Your task to perform on an android device: open app "ColorNote Notepad Notes" (install if not already installed) and go to login screen Image 0: 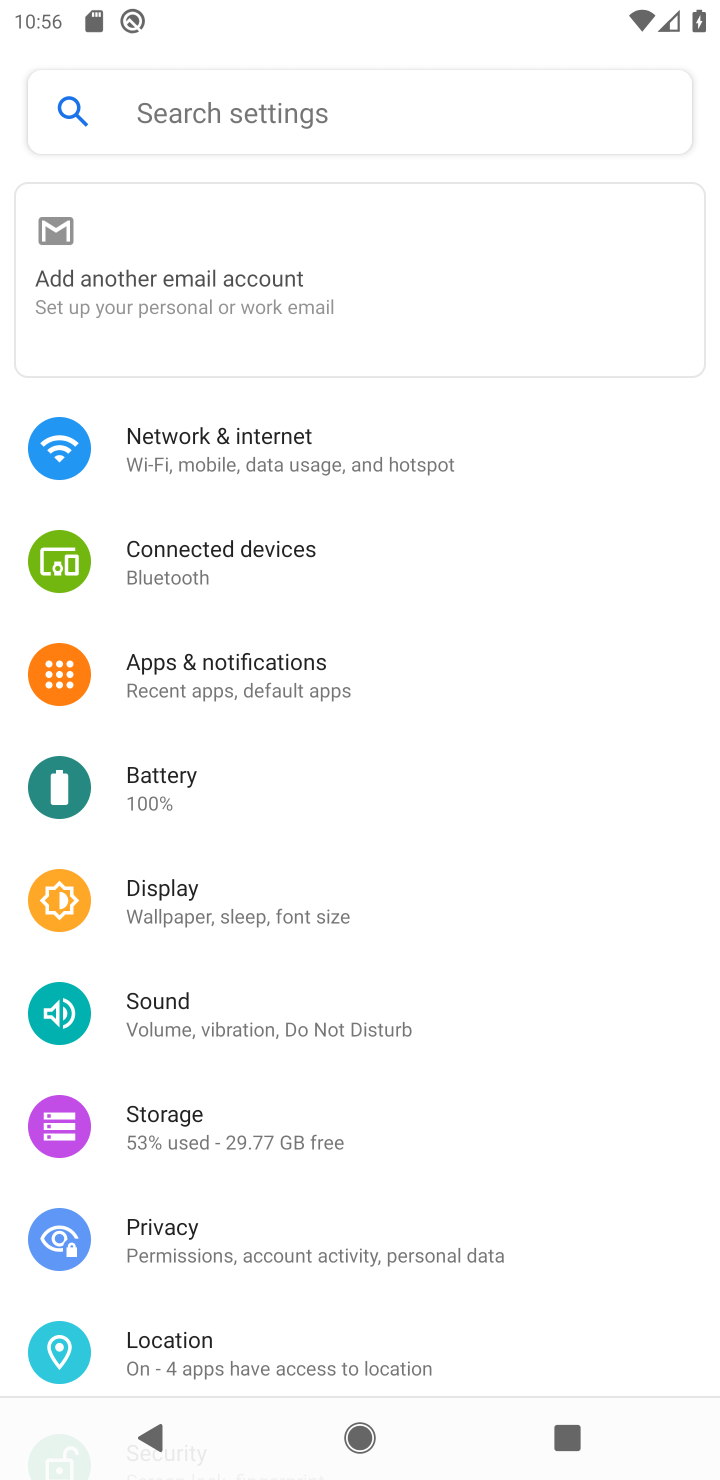
Step 0: press home button
Your task to perform on an android device: open app "ColorNote Notepad Notes" (install if not already installed) and go to login screen Image 1: 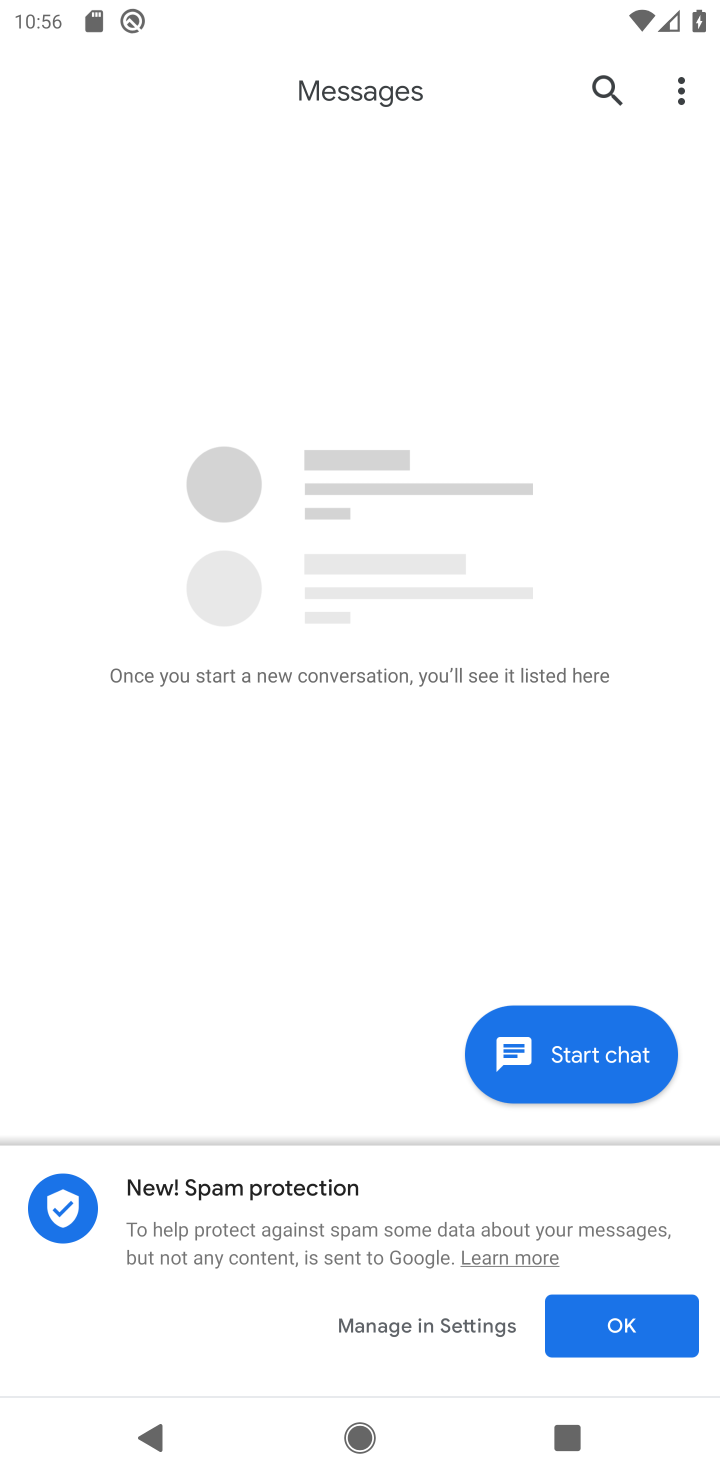
Step 1: press home button
Your task to perform on an android device: open app "ColorNote Notepad Notes" (install if not already installed) and go to login screen Image 2: 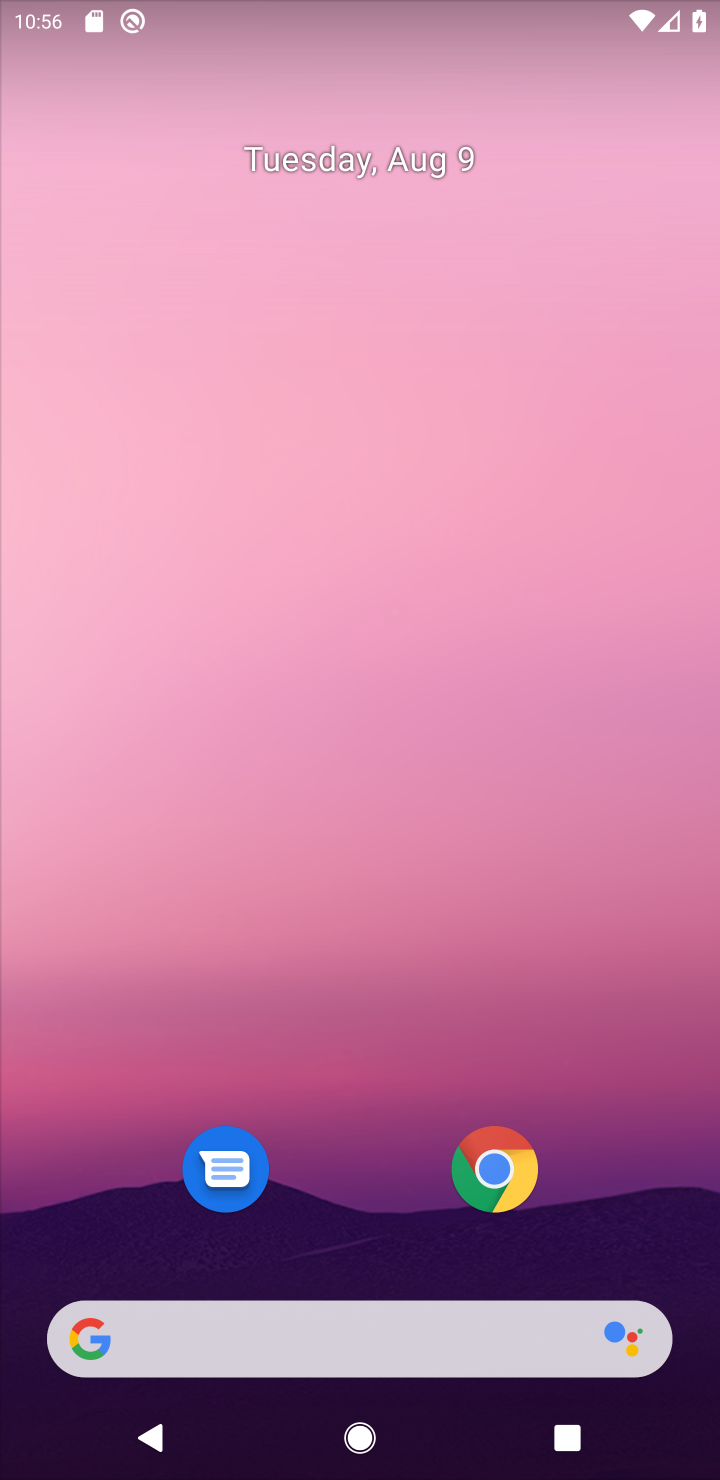
Step 2: drag from (620, 1194) to (661, 107)
Your task to perform on an android device: open app "ColorNote Notepad Notes" (install if not already installed) and go to login screen Image 3: 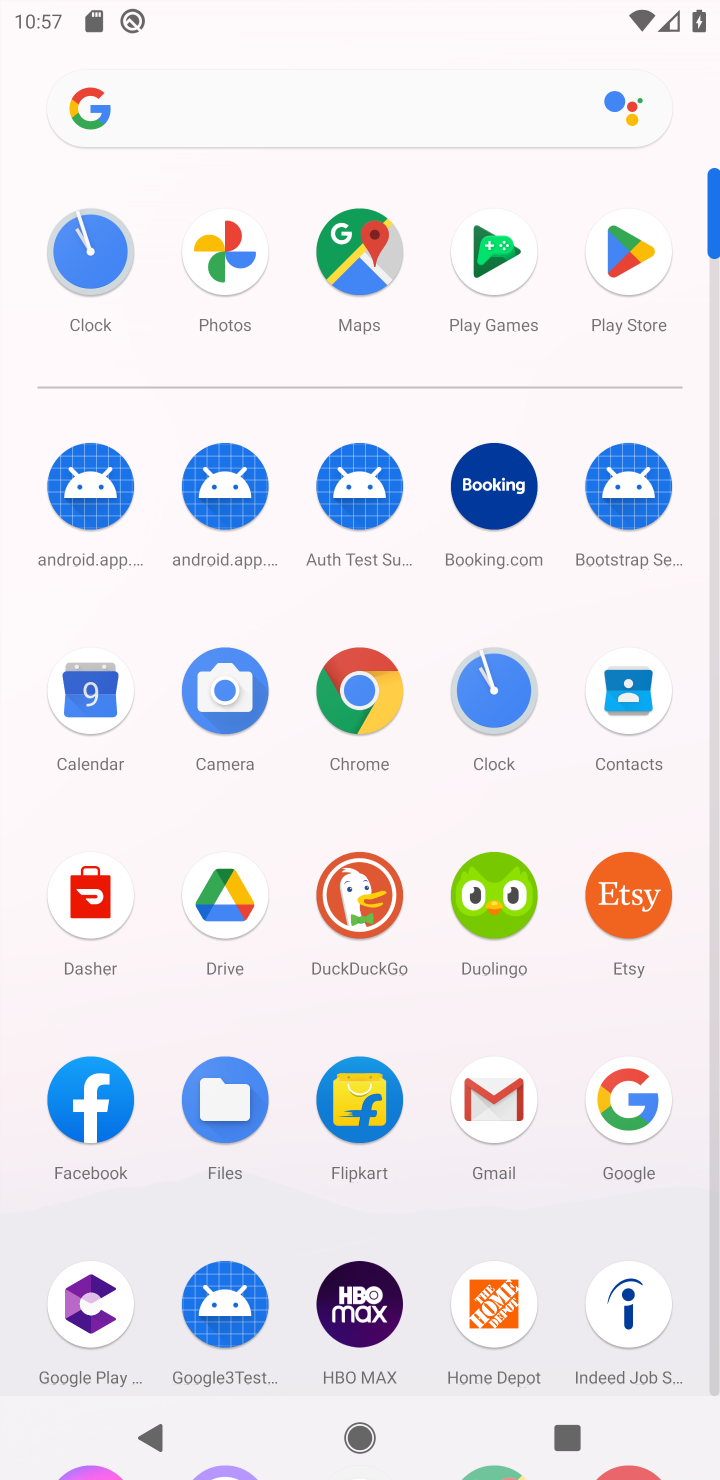
Step 3: click (659, 232)
Your task to perform on an android device: open app "ColorNote Notepad Notes" (install if not already installed) and go to login screen Image 4: 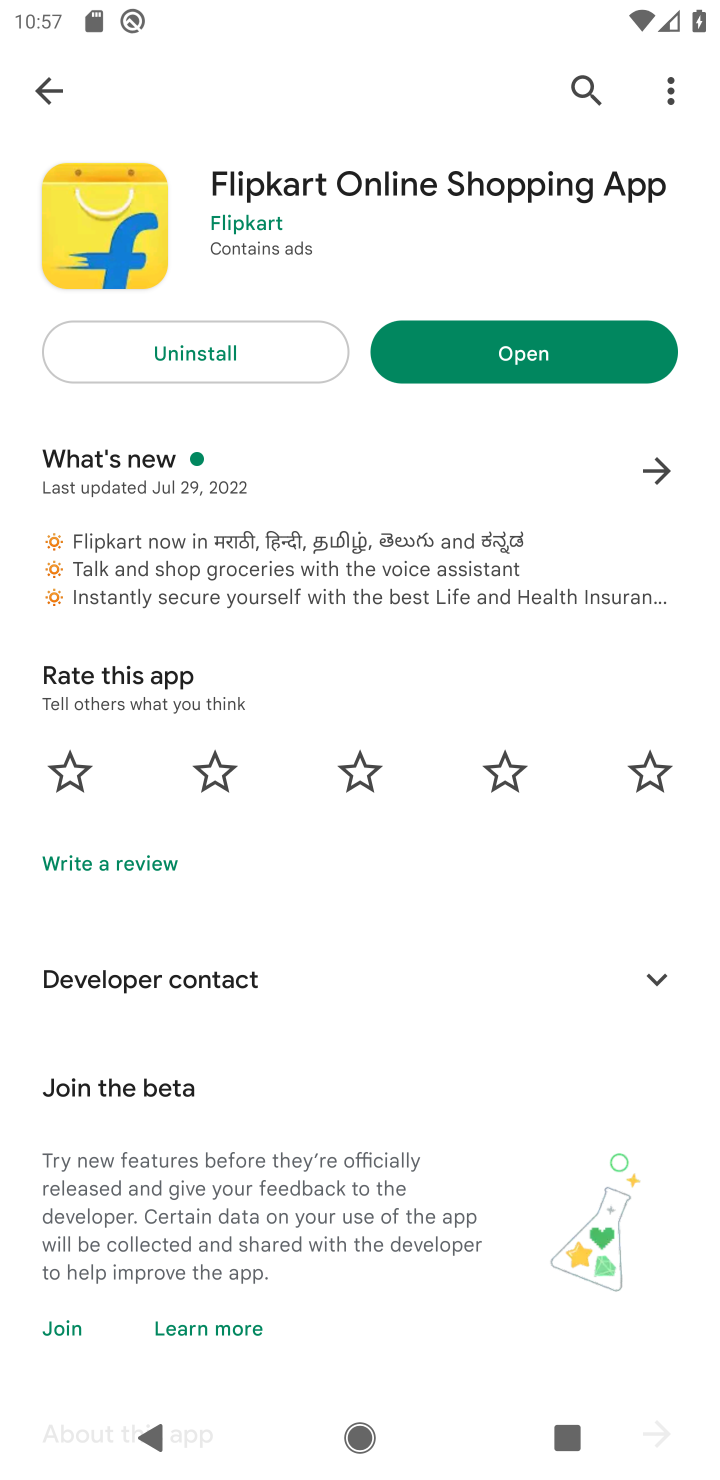
Step 4: click (571, 85)
Your task to perform on an android device: open app "ColorNote Notepad Notes" (install if not already installed) and go to login screen Image 5: 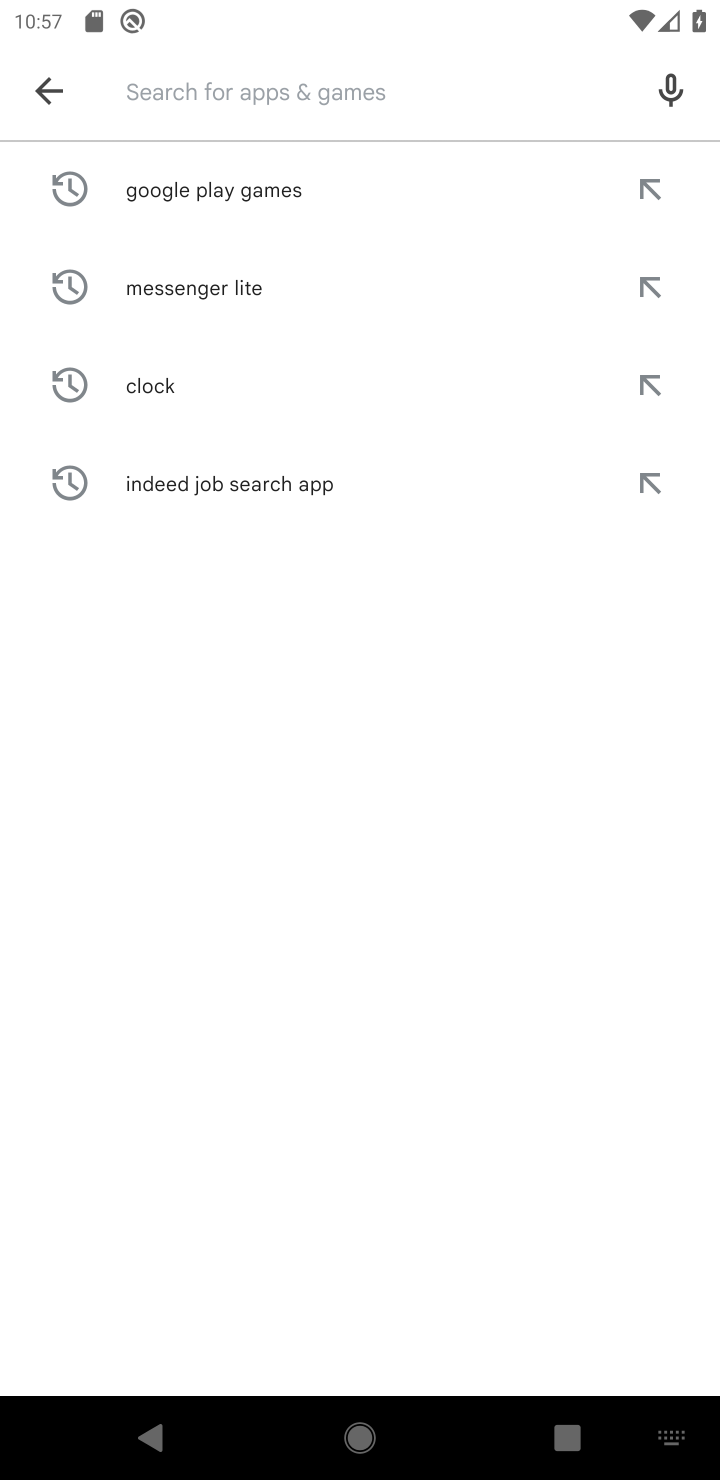
Step 5: click (474, 83)
Your task to perform on an android device: open app "ColorNote Notepad Notes" (install if not already installed) and go to login screen Image 6: 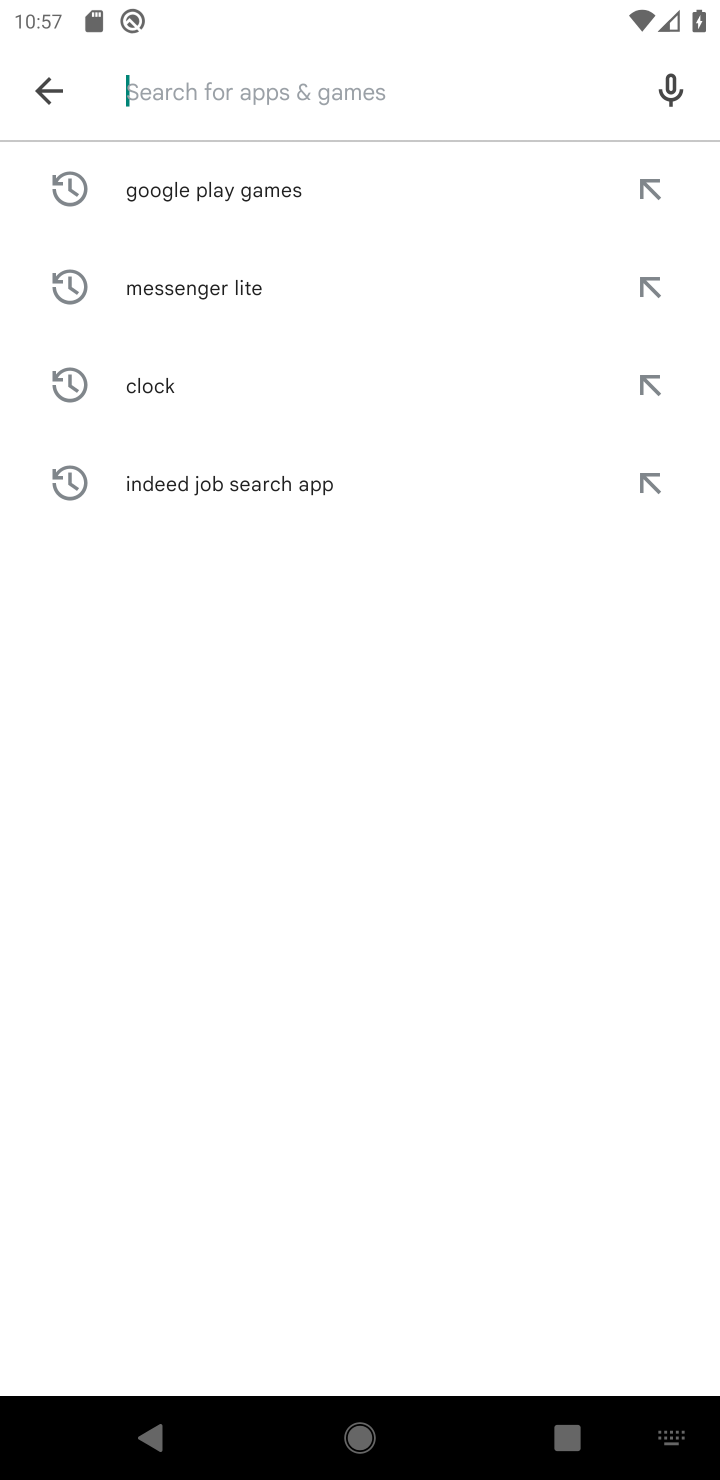
Step 6: type "ColorNote Notepad Notes"
Your task to perform on an android device: open app "ColorNote Notepad Notes" (install if not already installed) and go to login screen Image 7: 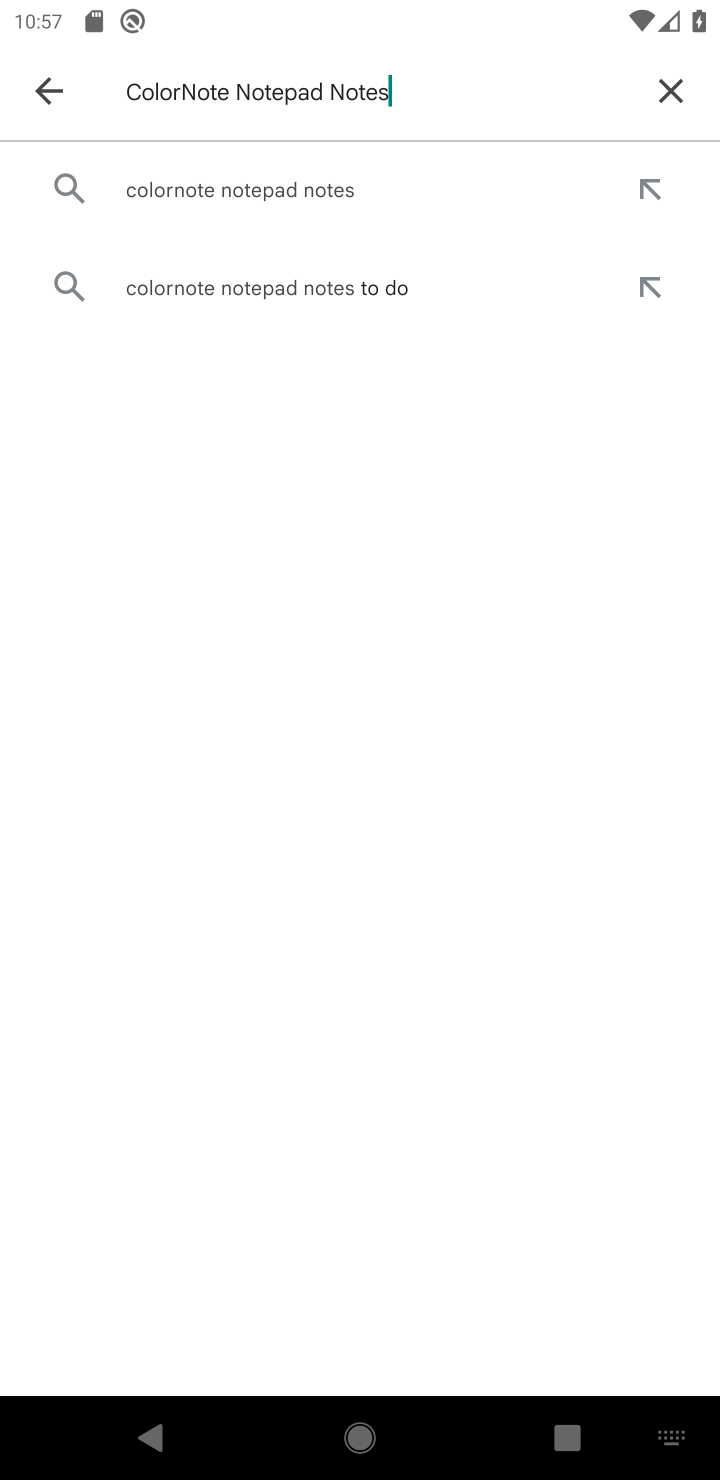
Step 7: click (299, 170)
Your task to perform on an android device: open app "ColorNote Notepad Notes" (install if not already installed) and go to login screen Image 8: 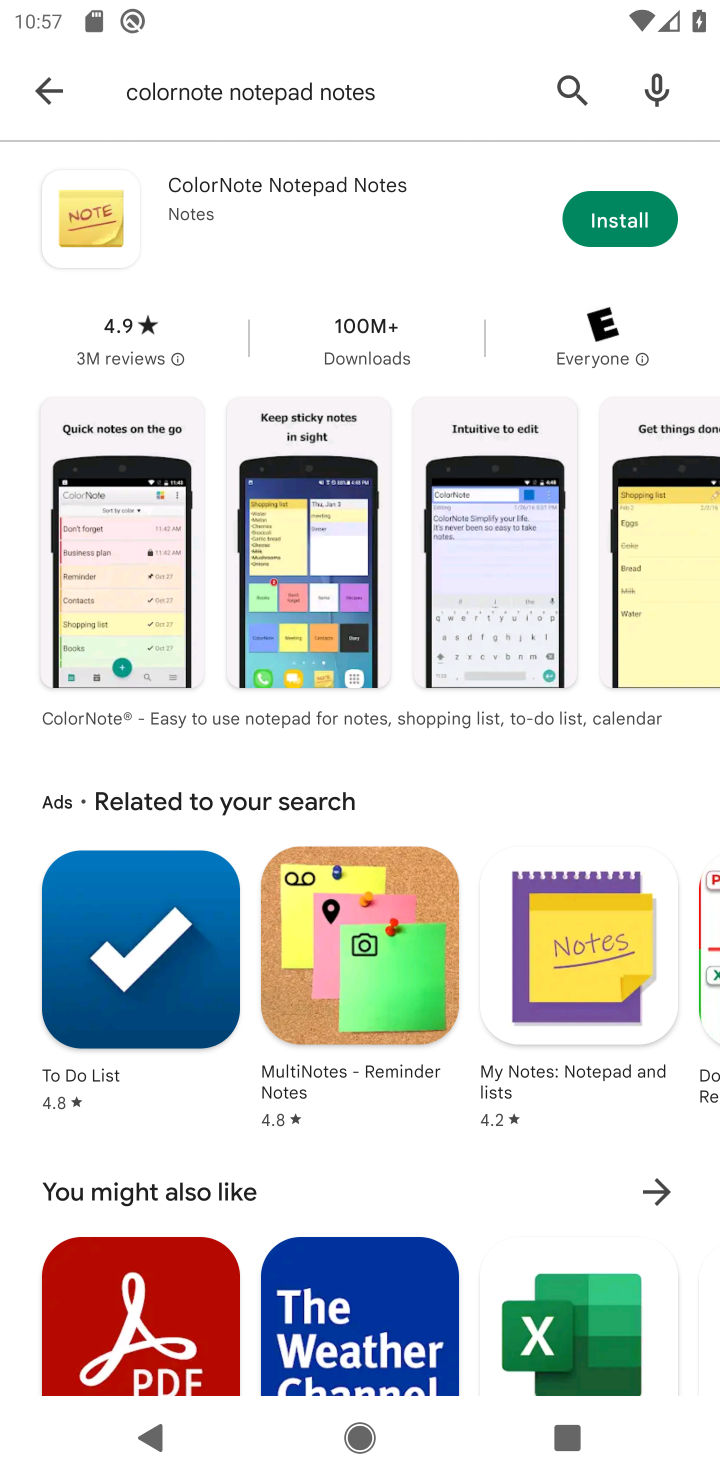
Step 8: click (628, 213)
Your task to perform on an android device: open app "ColorNote Notepad Notes" (install if not already installed) and go to login screen Image 9: 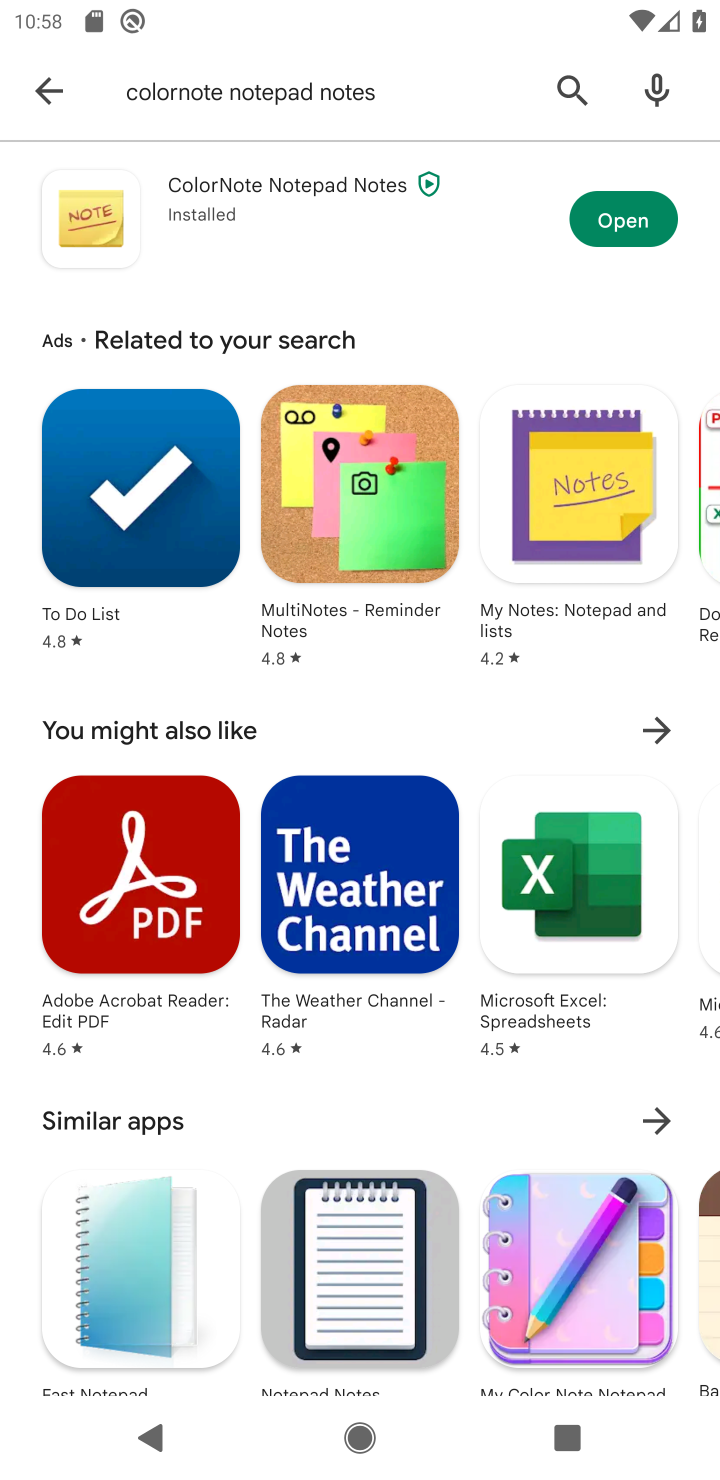
Step 9: click (637, 223)
Your task to perform on an android device: open app "ColorNote Notepad Notes" (install if not already installed) and go to login screen Image 10: 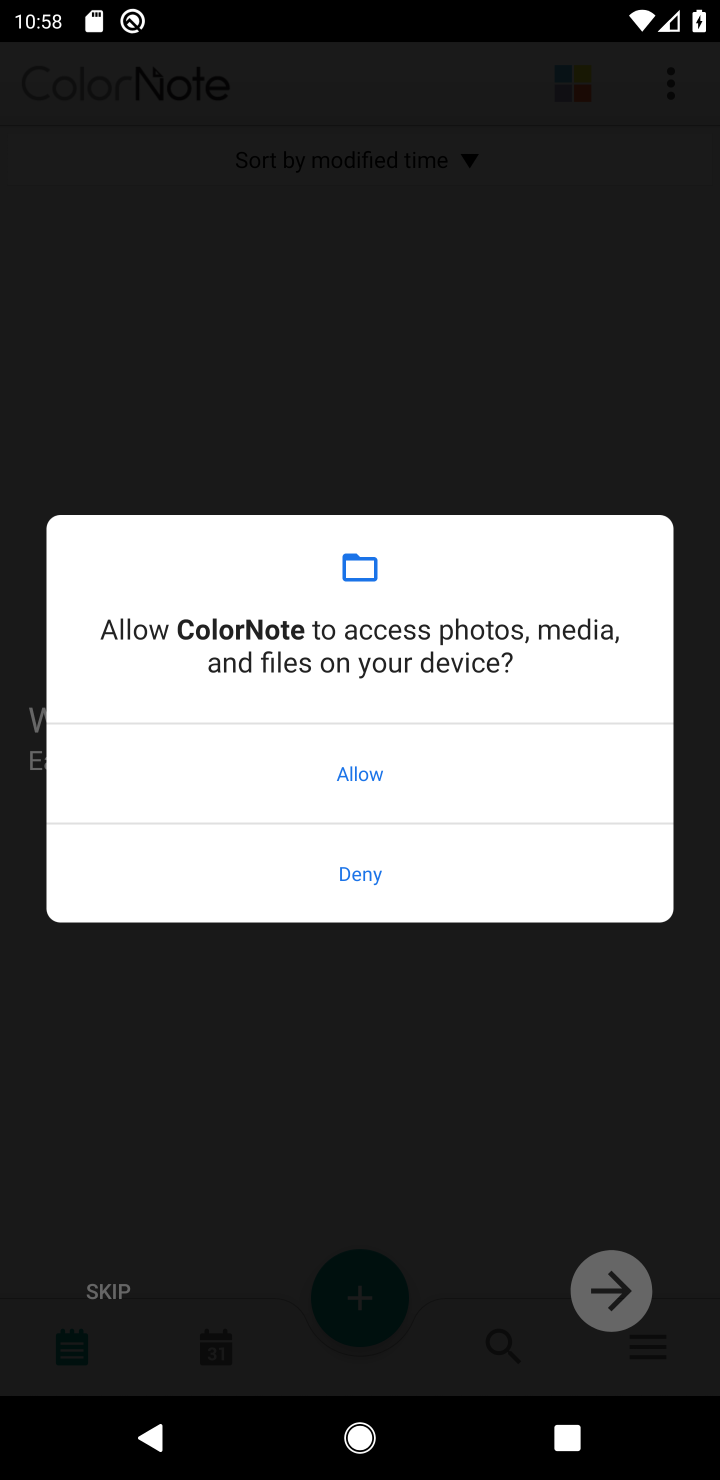
Step 10: click (440, 866)
Your task to perform on an android device: open app "ColorNote Notepad Notes" (install if not already installed) and go to login screen Image 11: 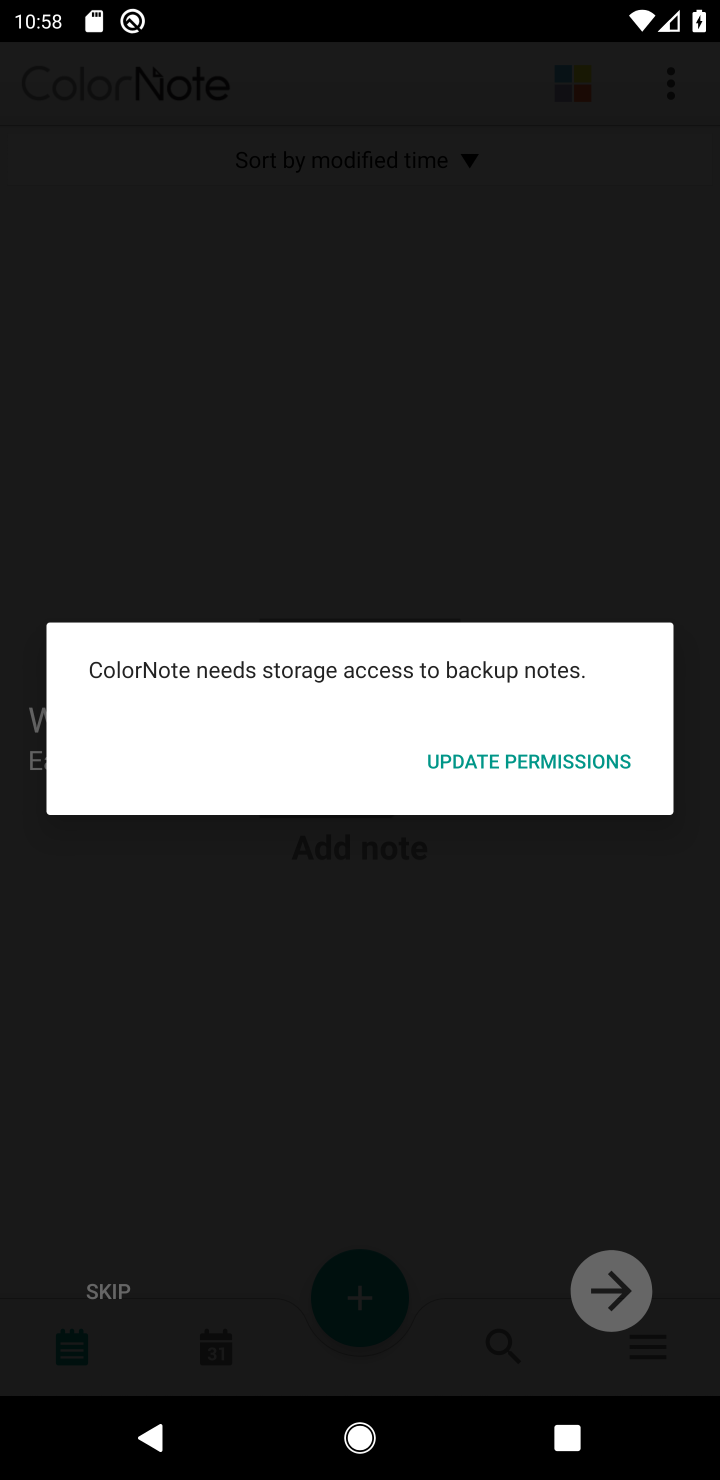
Step 11: click (545, 753)
Your task to perform on an android device: open app "ColorNote Notepad Notes" (install if not already installed) and go to login screen Image 12: 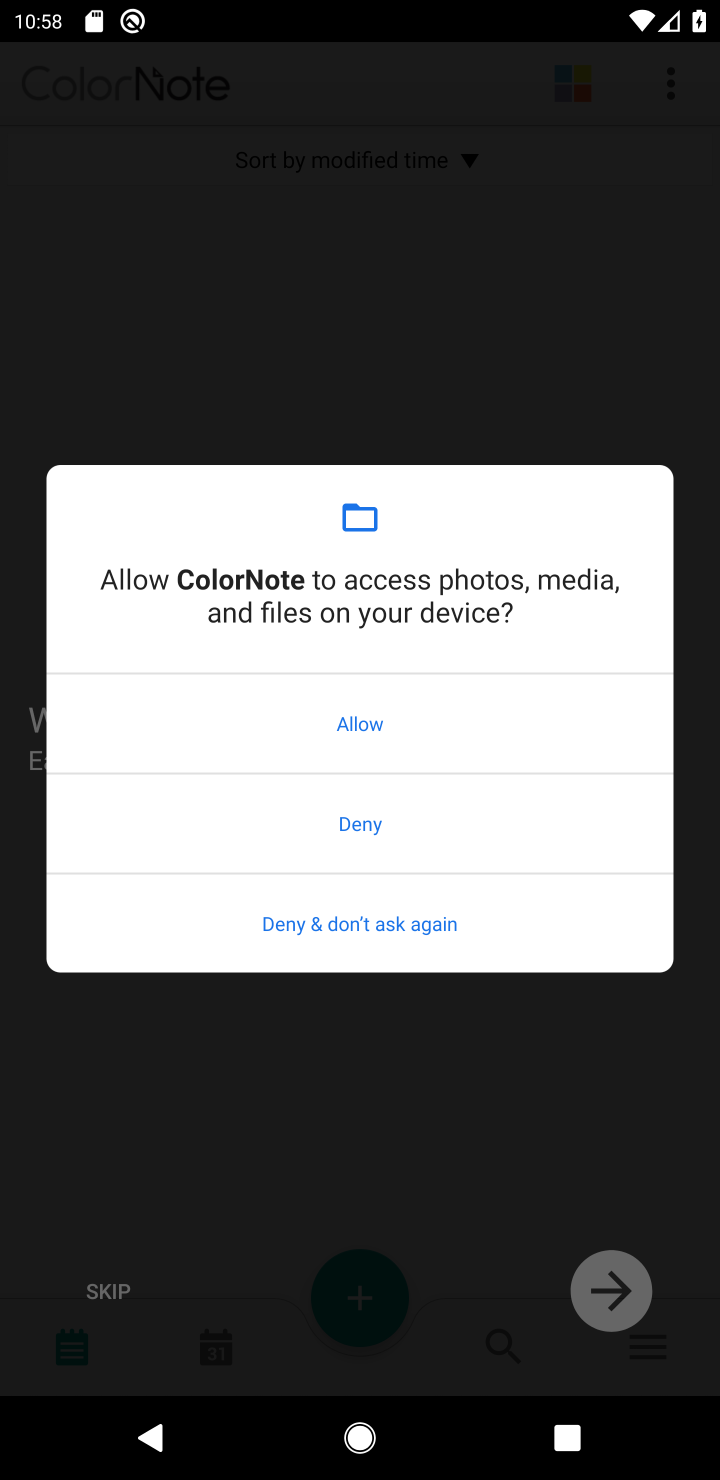
Step 12: click (473, 930)
Your task to perform on an android device: open app "ColorNote Notepad Notes" (install if not already installed) and go to login screen Image 13: 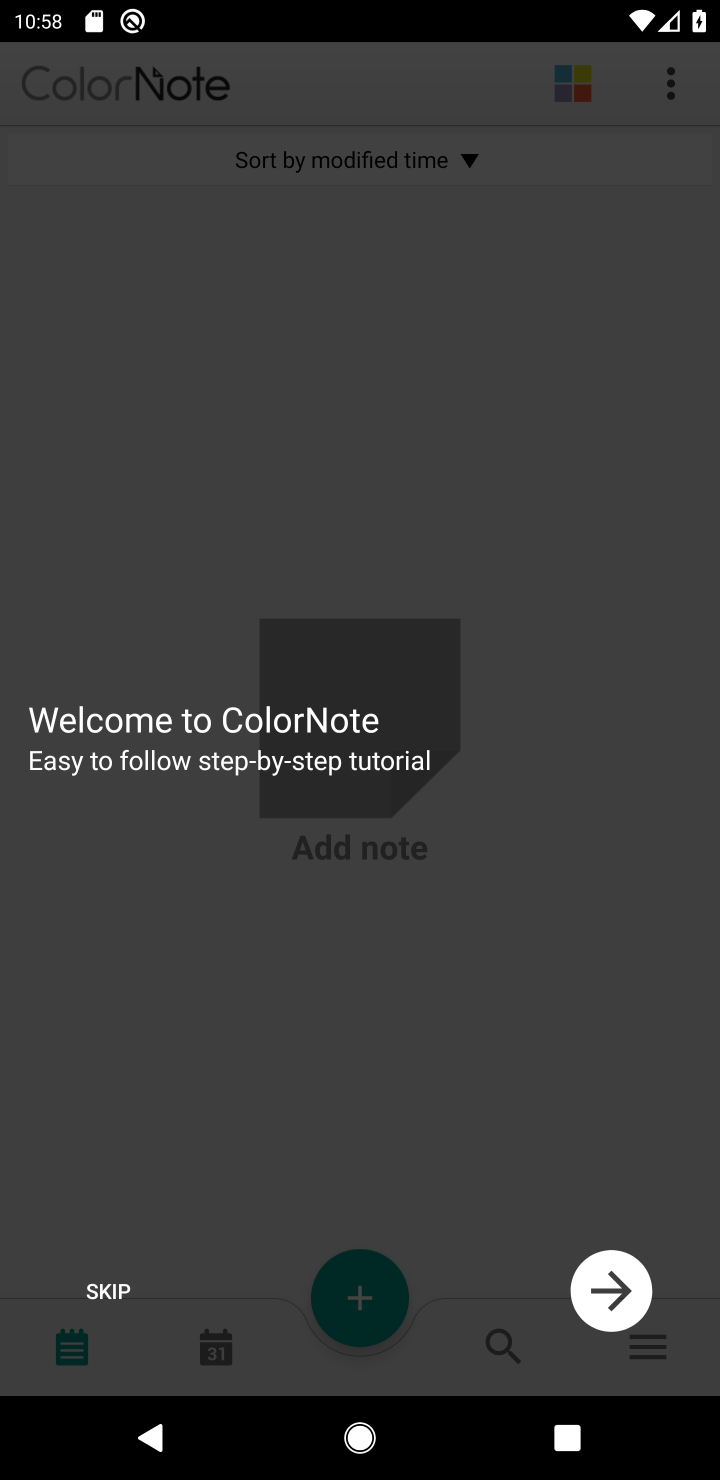
Step 13: click (102, 1287)
Your task to perform on an android device: open app "ColorNote Notepad Notes" (install if not already installed) and go to login screen Image 14: 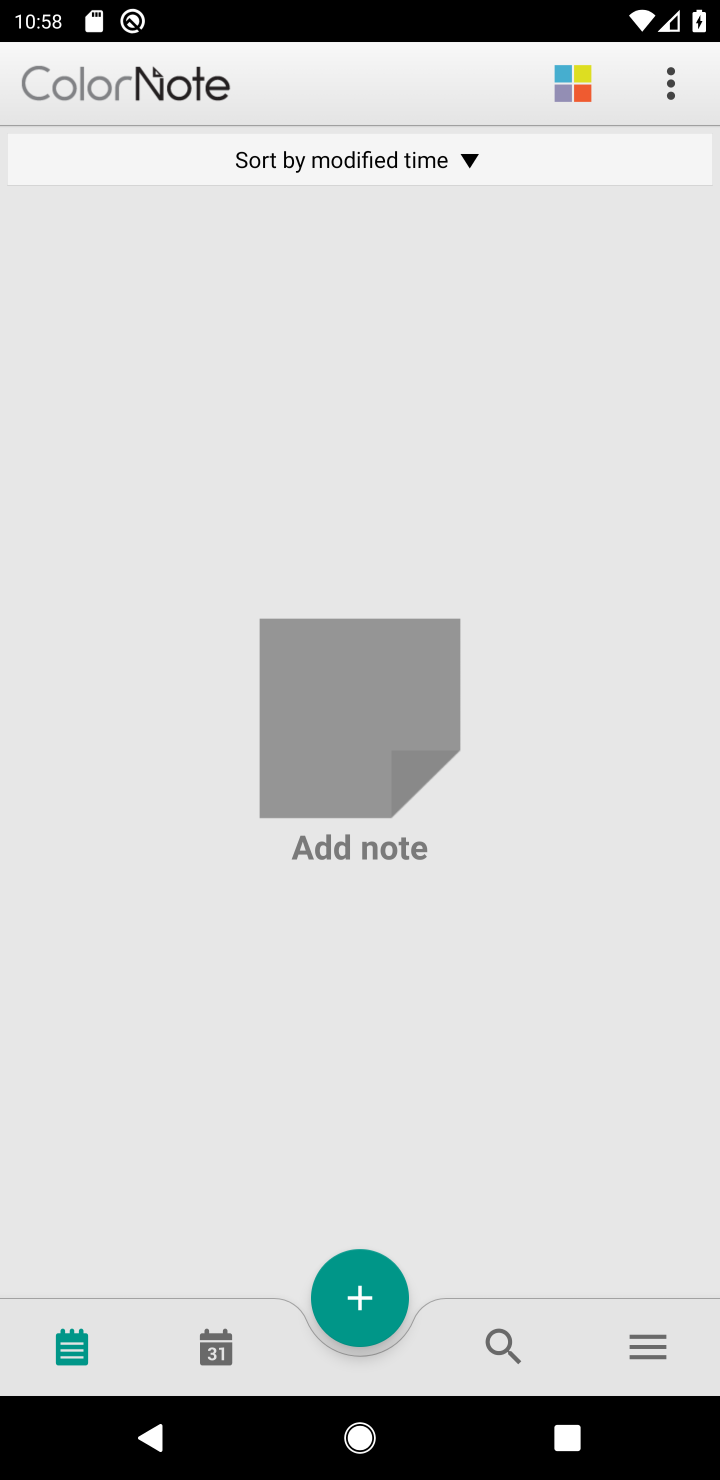
Step 14: click (673, 71)
Your task to perform on an android device: open app "ColorNote Notepad Notes" (install if not already installed) and go to login screen Image 15: 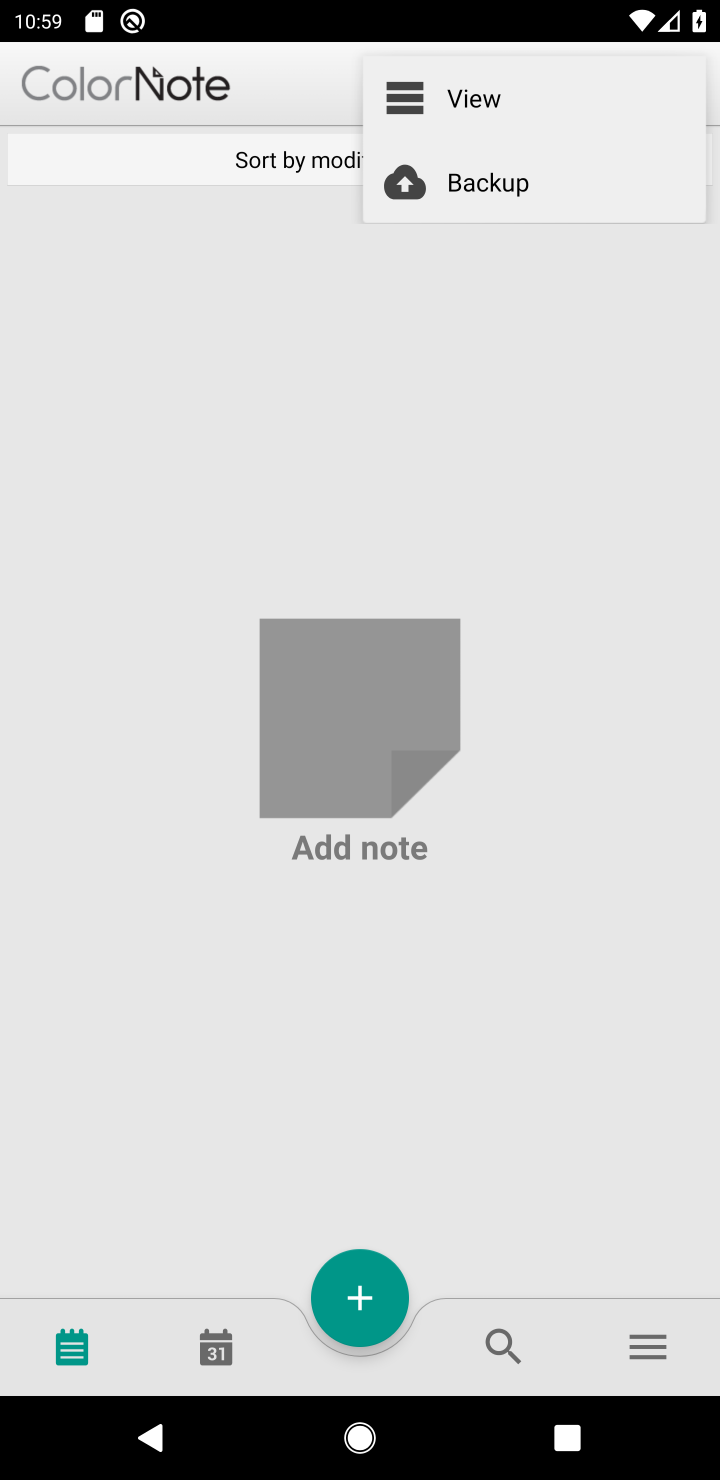
Step 15: click (641, 1347)
Your task to perform on an android device: open app "ColorNote Notepad Notes" (install if not already installed) and go to login screen Image 16: 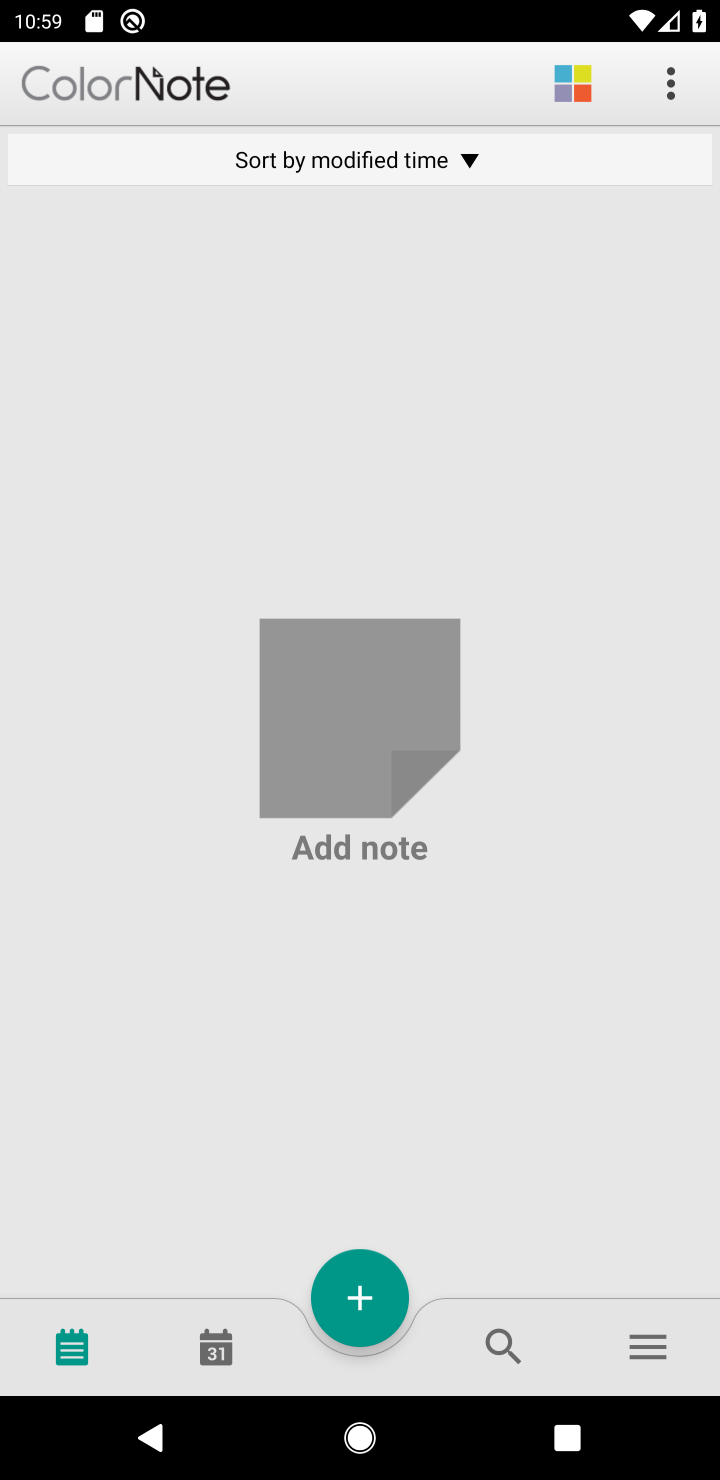
Step 16: click (641, 1350)
Your task to perform on an android device: open app "ColorNote Notepad Notes" (install if not already installed) and go to login screen Image 17: 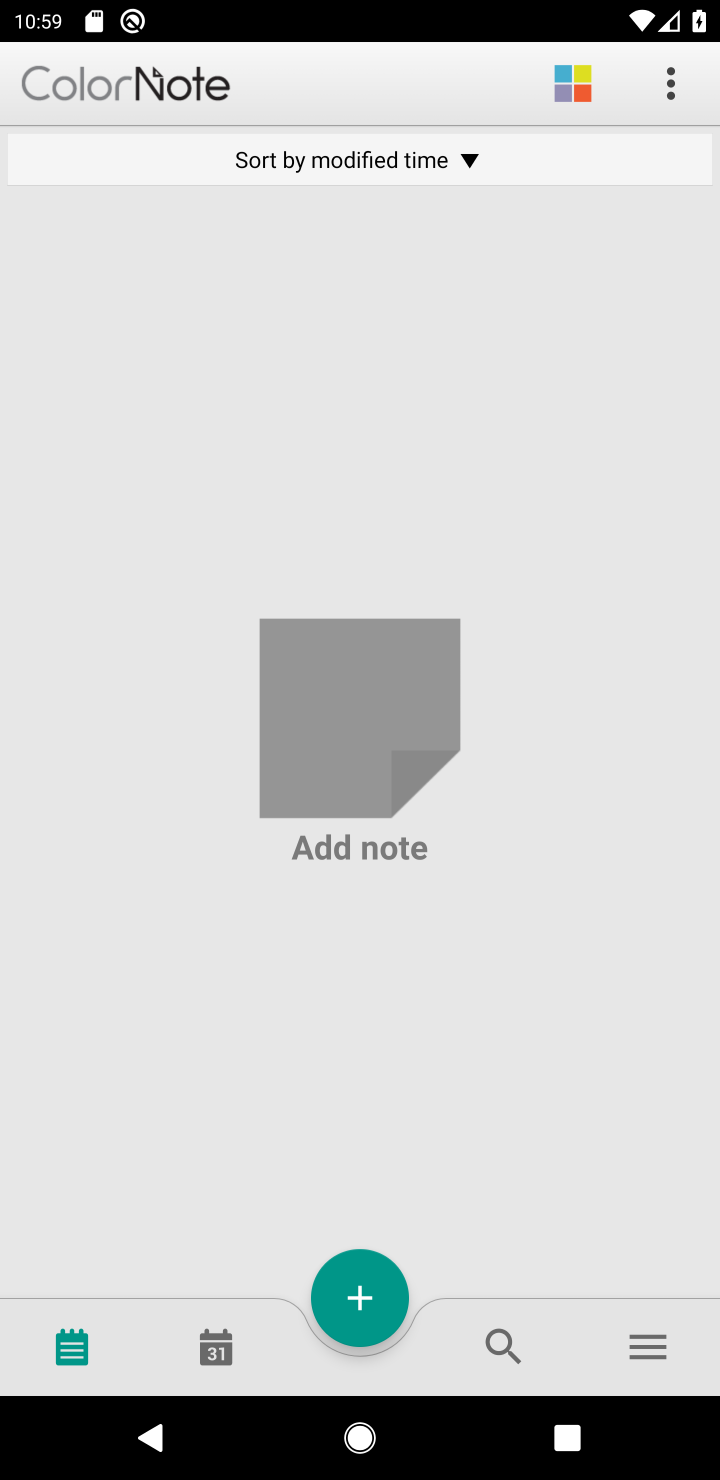
Step 17: task complete